Your task to perform on an android device: Show me productivity apps on the Play Store Image 0: 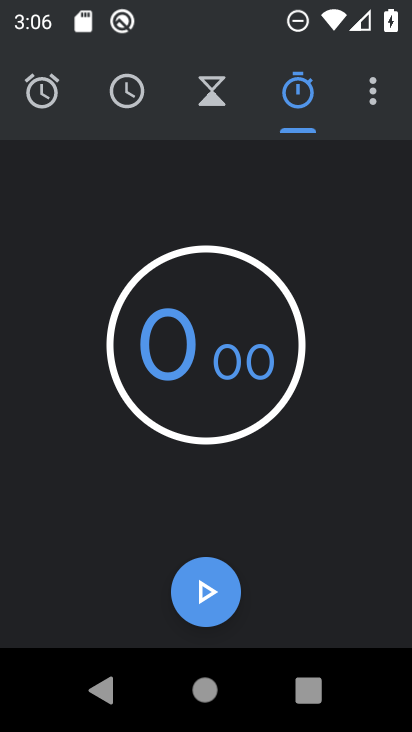
Step 0: press home button
Your task to perform on an android device: Show me productivity apps on the Play Store Image 1: 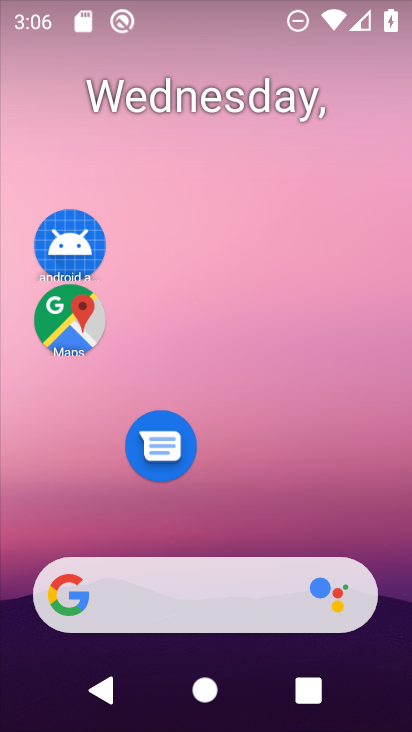
Step 1: drag from (219, 509) to (267, 83)
Your task to perform on an android device: Show me productivity apps on the Play Store Image 2: 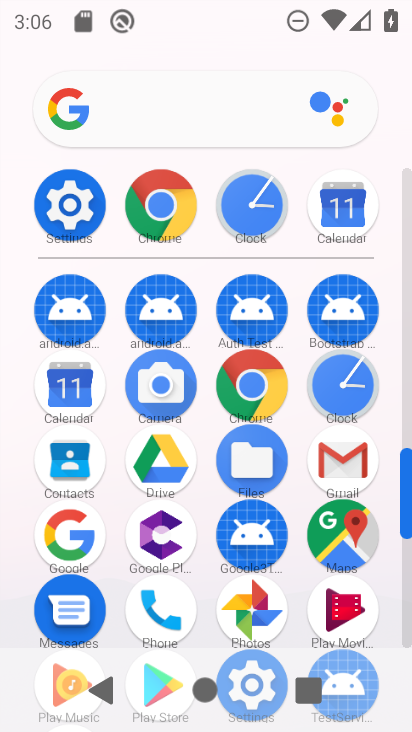
Step 2: click (403, 592)
Your task to perform on an android device: Show me productivity apps on the Play Store Image 3: 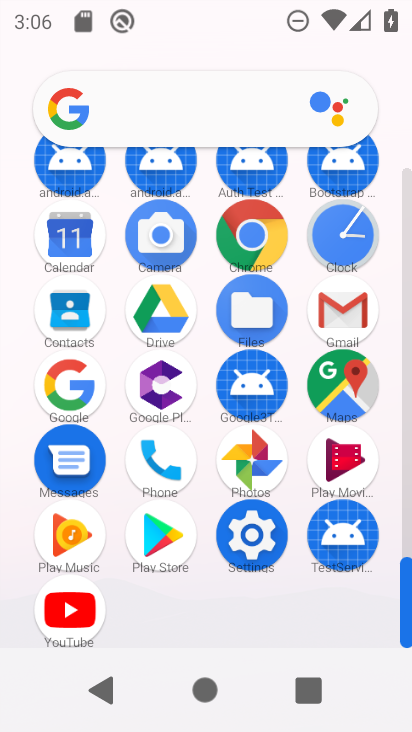
Step 3: click (171, 552)
Your task to perform on an android device: Show me productivity apps on the Play Store Image 4: 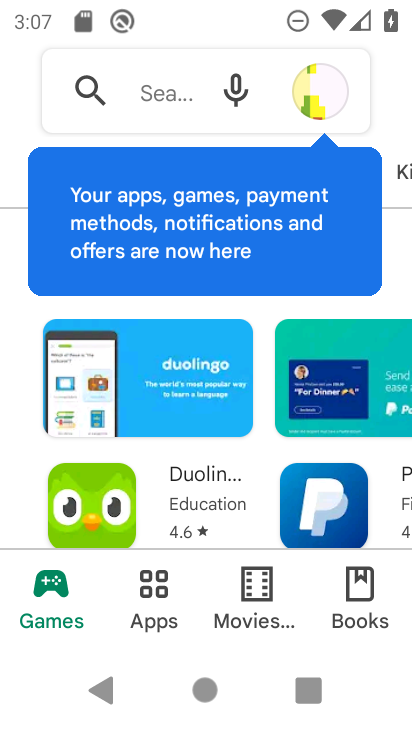
Step 4: click (153, 591)
Your task to perform on an android device: Show me productivity apps on the Play Store Image 5: 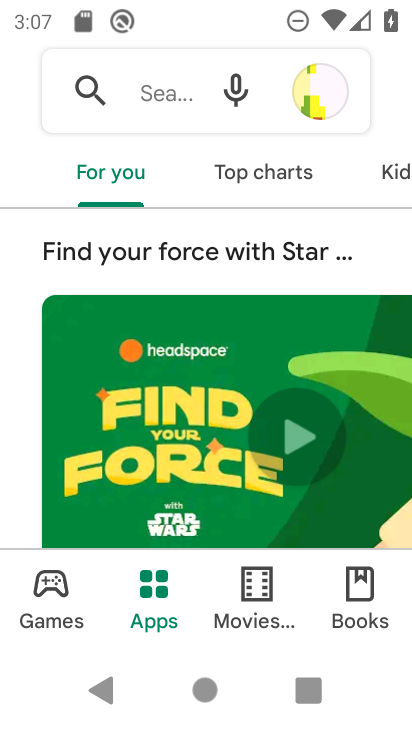
Step 5: click (241, 161)
Your task to perform on an android device: Show me productivity apps on the Play Store Image 6: 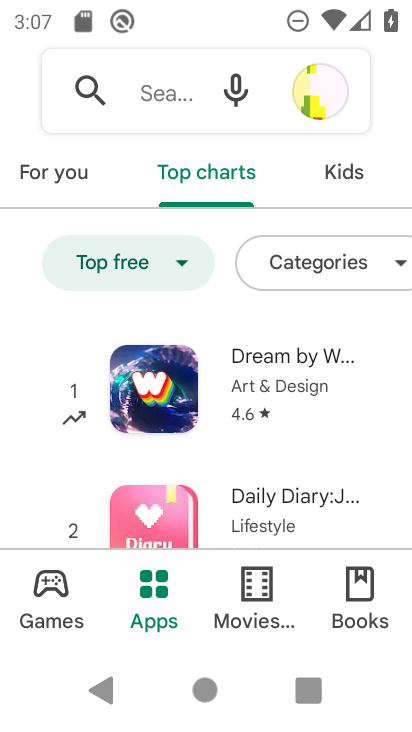
Step 6: click (297, 262)
Your task to perform on an android device: Show me productivity apps on the Play Store Image 7: 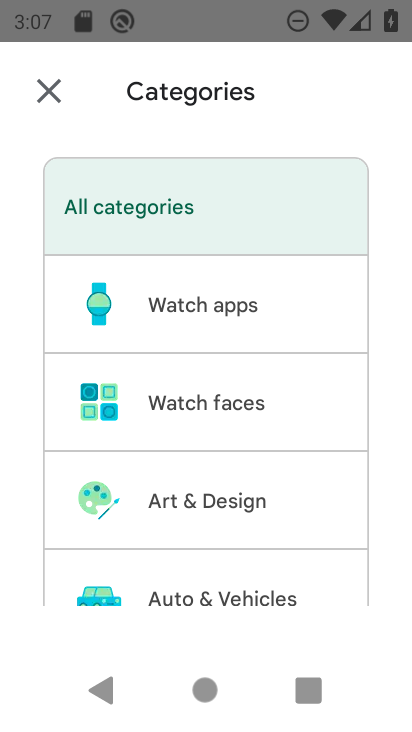
Step 7: drag from (193, 581) to (236, 176)
Your task to perform on an android device: Show me productivity apps on the Play Store Image 8: 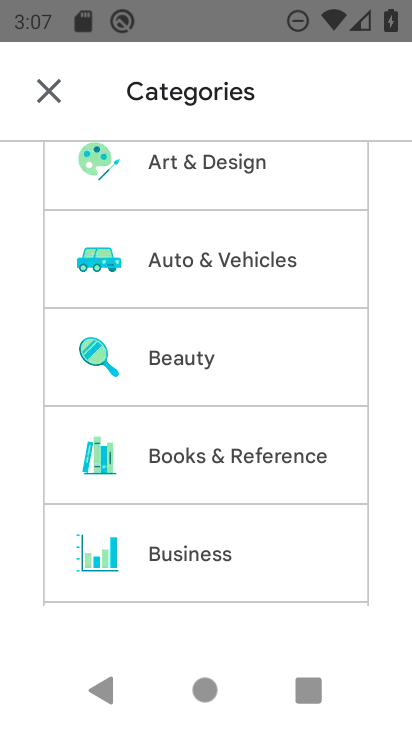
Step 8: drag from (204, 575) to (235, 145)
Your task to perform on an android device: Show me productivity apps on the Play Store Image 9: 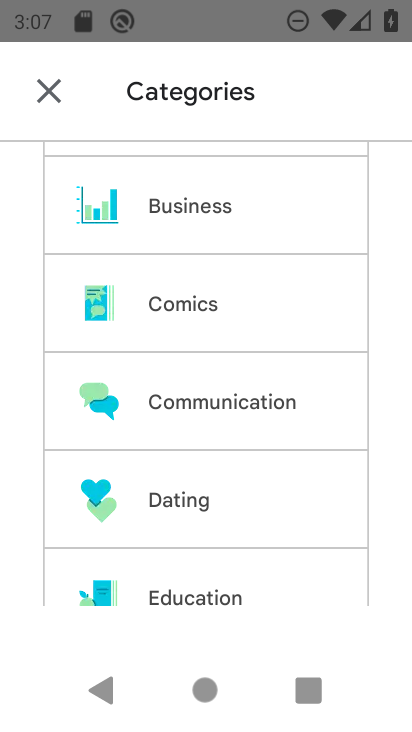
Step 9: drag from (184, 572) to (248, 192)
Your task to perform on an android device: Show me productivity apps on the Play Store Image 10: 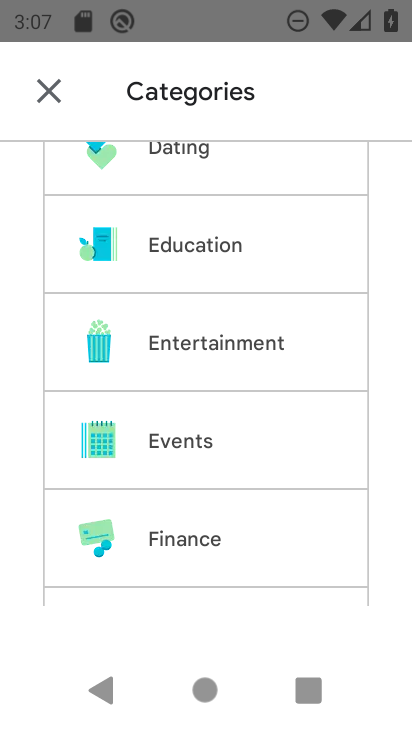
Step 10: drag from (217, 564) to (245, 247)
Your task to perform on an android device: Show me productivity apps on the Play Store Image 11: 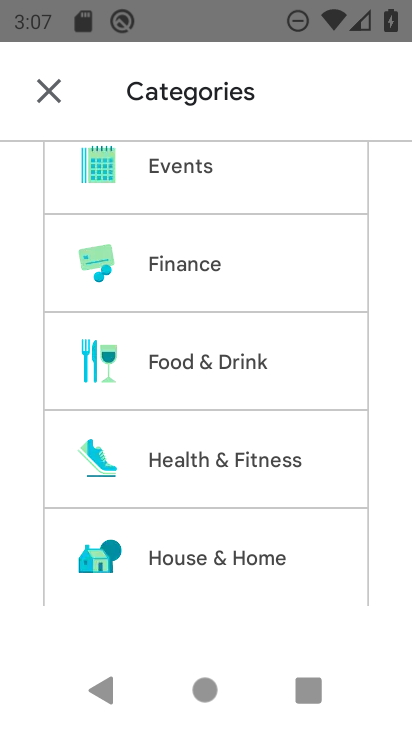
Step 11: drag from (214, 520) to (258, 244)
Your task to perform on an android device: Show me productivity apps on the Play Store Image 12: 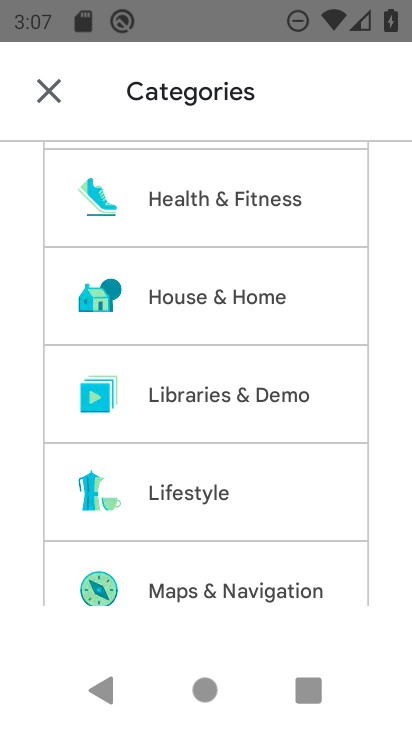
Step 12: drag from (212, 585) to (230, 365)
Your task to perform on an android device: Show me productivity apps on the Play Store Image 13: 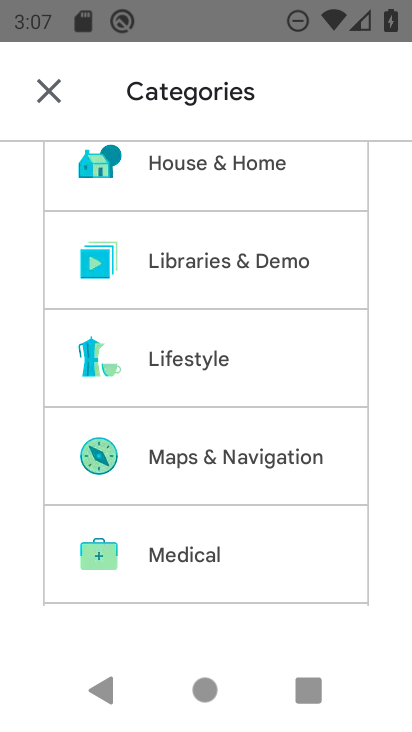
Step 13: drag from (204, 540) to (256, 240)
Your task to perform on an android device: Show me productivity apps on the Play Store Image 14: 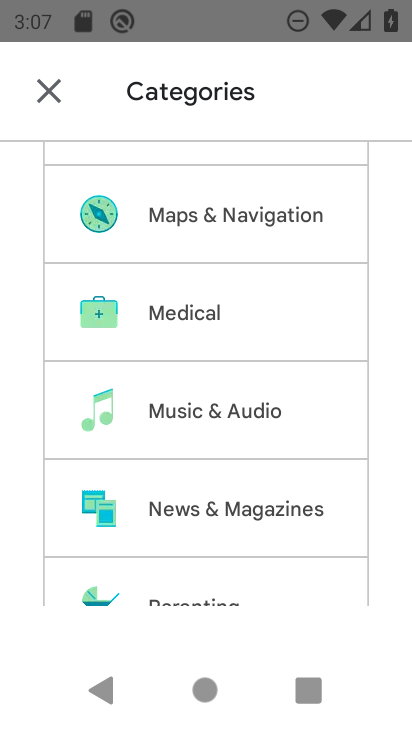
Step 14: drag from (221, 534) to (252, 292)
Your task to perform on an android device: Show me productivity apps on the Play Store Image 15: 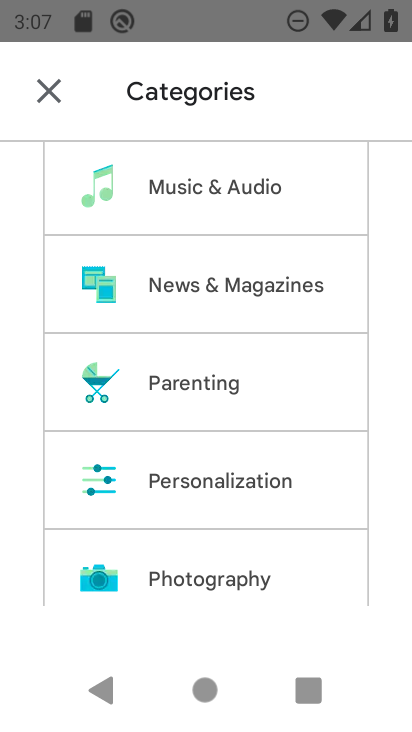
Step 15: drag from (239, 504) to (269, 297)
Your task to perform on an android device: Show me productivity apps on the Play Store Image 16: 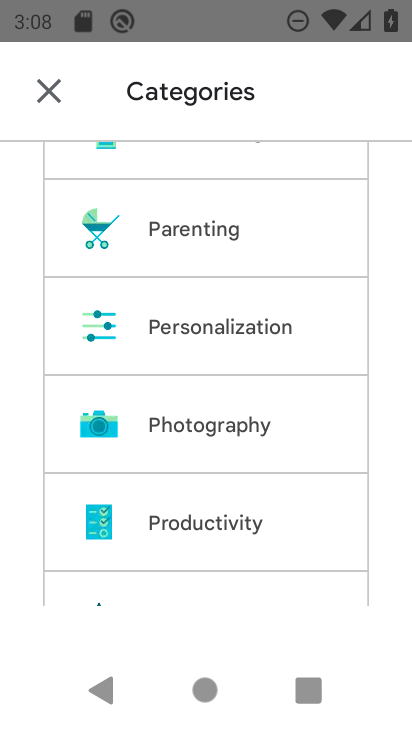
Step 16: click (233, 531)
Your task to perform on an android device: Show me productivity apps on the Play Store Image 17: 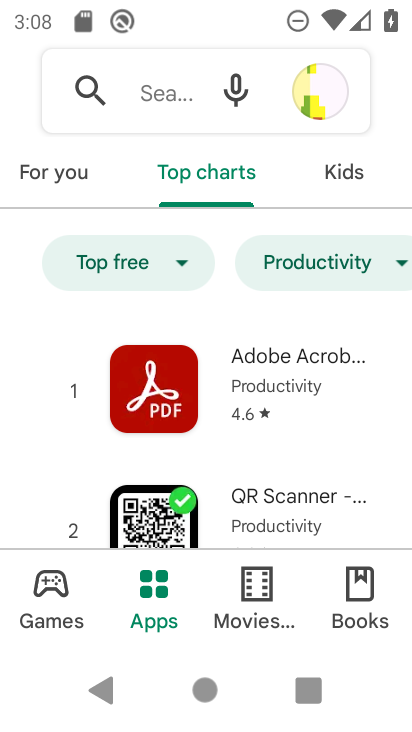
Step 17: task complete